Your task to perform on an android device: Open my contact list Image 0: 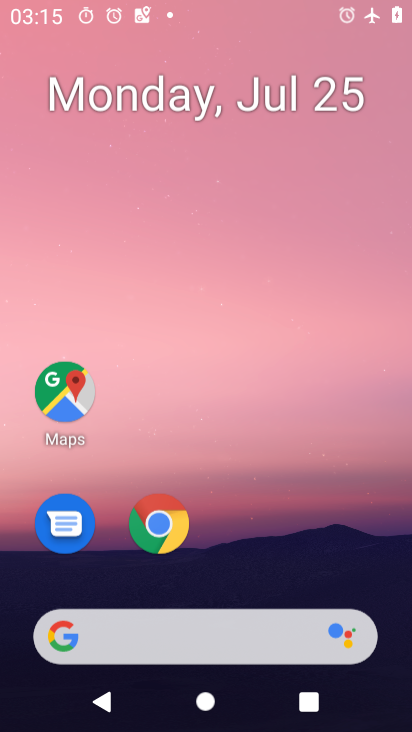
Step 0: press home button
Your task to perform on an android device: Open my contact list Image 1: 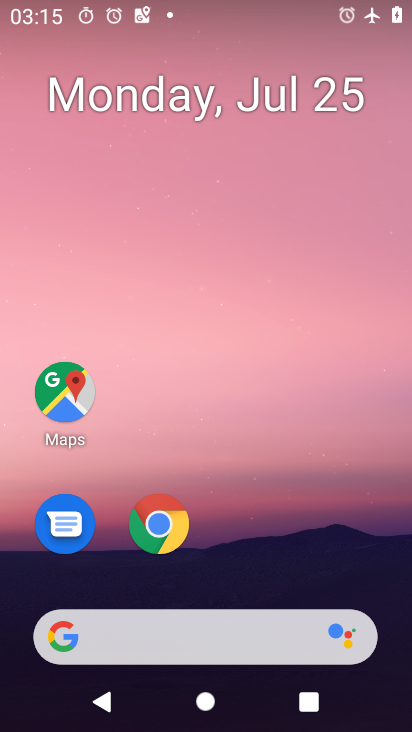
Step 1: drag from (245, 580) to (247, 17)
Your task to perform on an android device: Open my contact list Image 2: 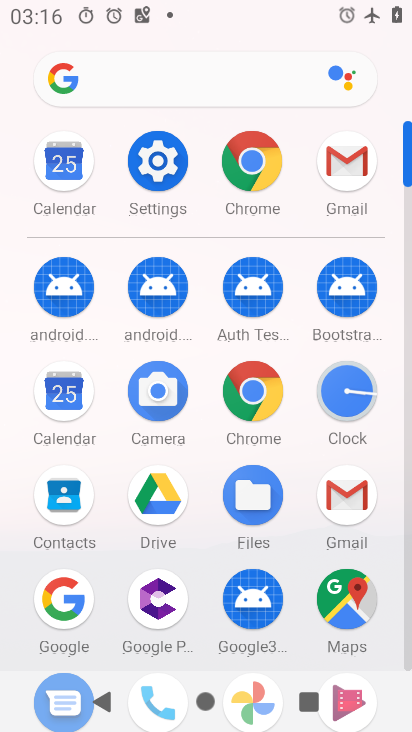
Step 2: click (58, 502)
Your task to perform on an android device: Open my contact list Image 3: 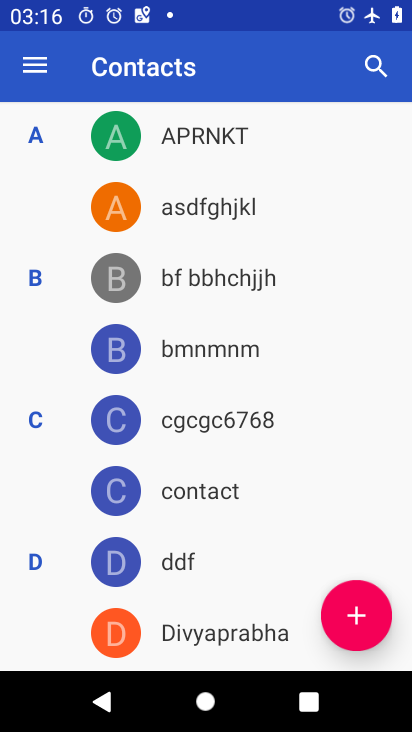
Step 3: task complete